Your task to perform on an android device: What's the news in Pakistan? Image 0: 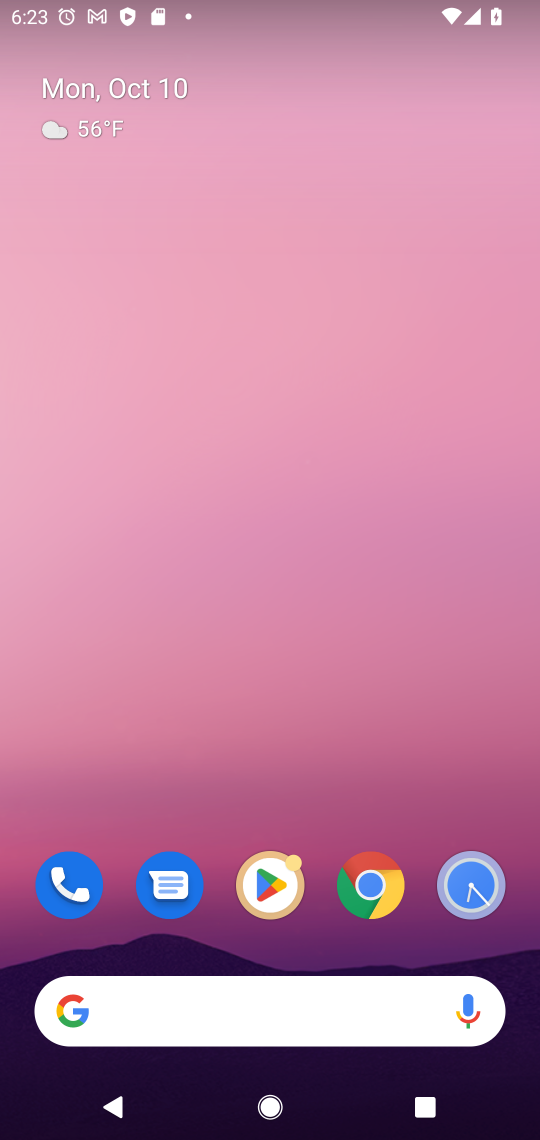
Step 0: click (178, 1020)
Your task to perform on an android device: What's the news in Pakistan? Image 1: 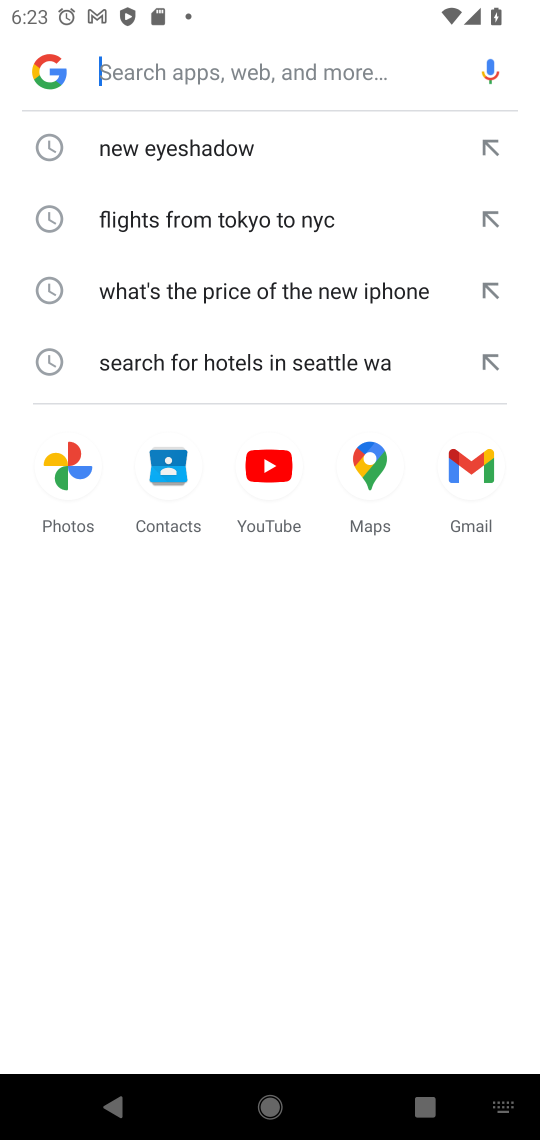
Step 1: type "What's the news in Pakistan?"
Your task to perform on an android device: What's the news in Pakistan? Image 2: 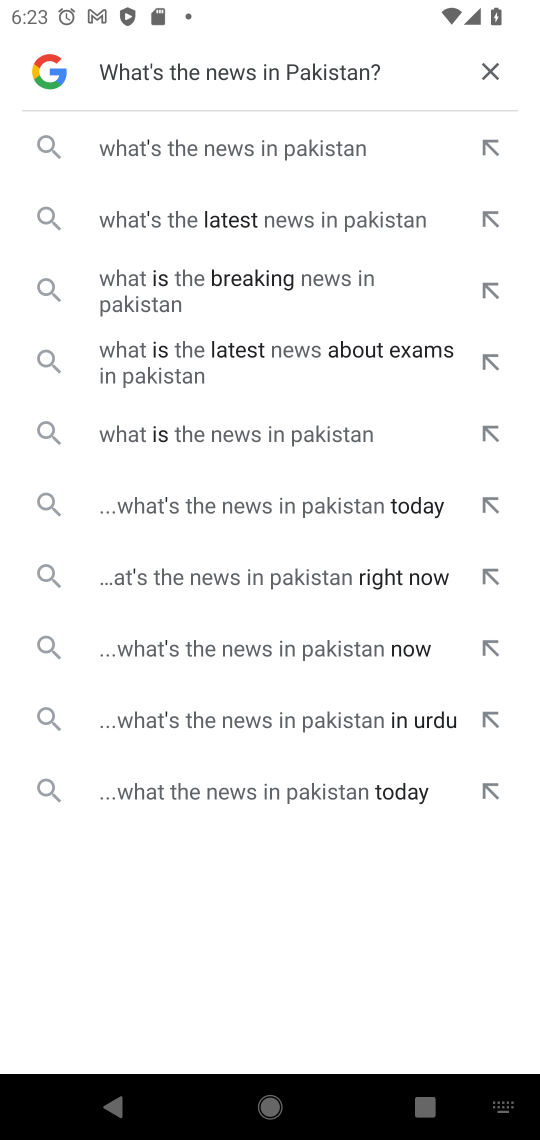
Step 2: click (287, 141)
Your task to perform on an android device: What's the news in Pakistan? Image 3: 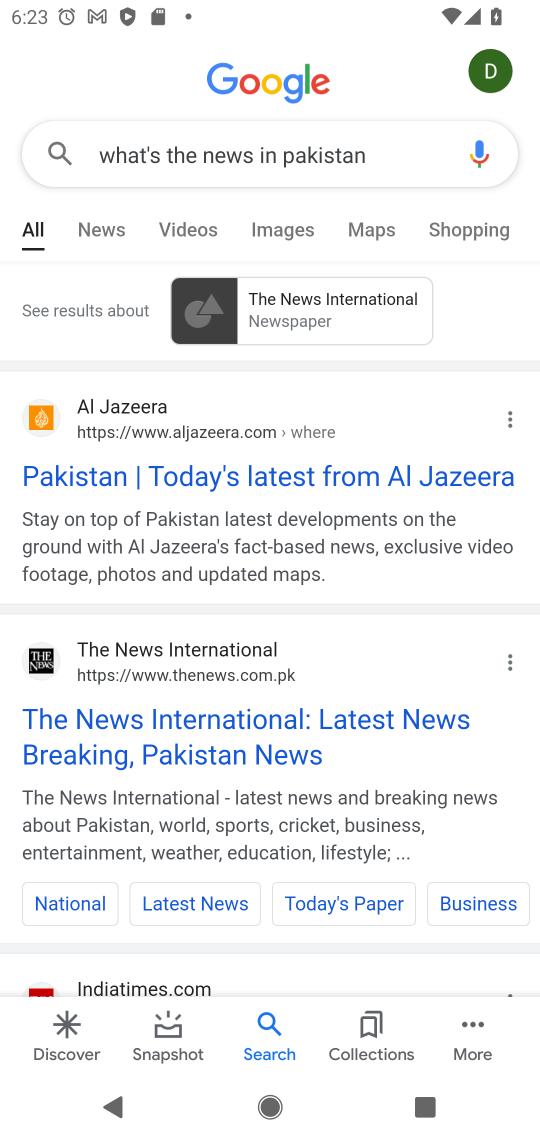
Step 3: click (226, 467)
Your task to perform on an android device: What's the news in Pakistan? Image 4: 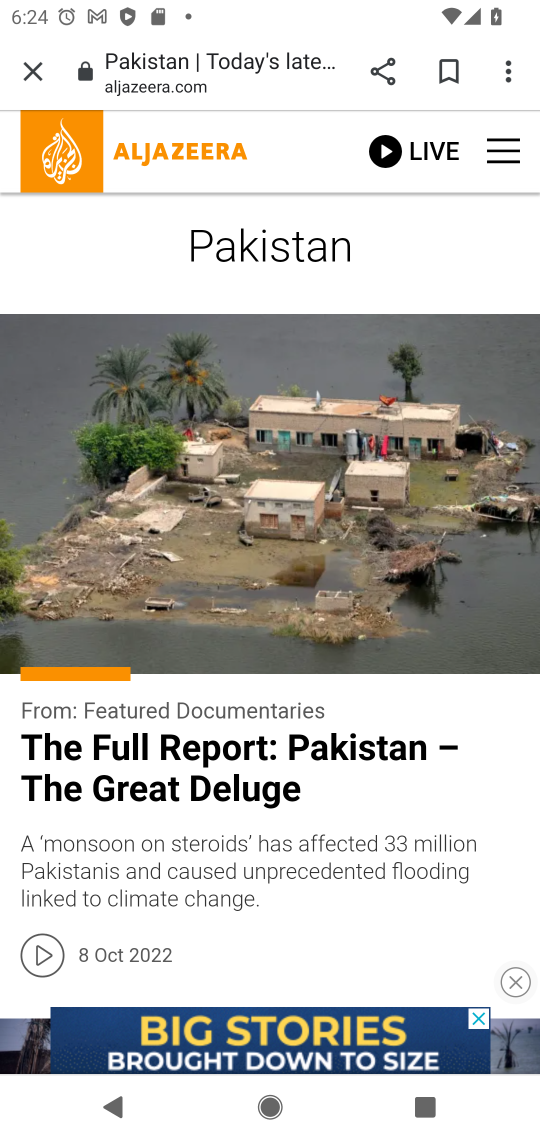
Step 4: task complete